Your task to perform on an android device: Search for vegetarian restaurants on Maps Image 0: 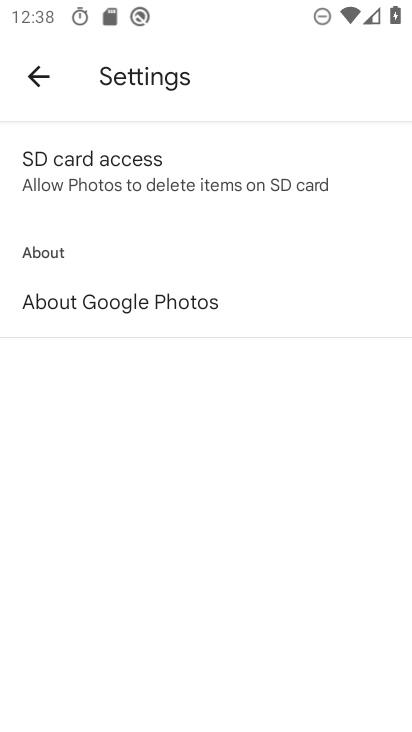
Step 0: press home button
Your task to perform on an android device: Search for vegetarian restaurants on Maps Image 1: 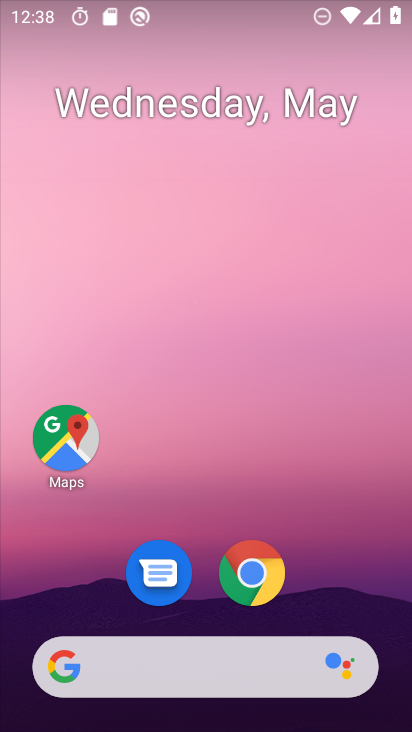
Step 1: drag from (296, 587) to (301, 61)
Your task to perform on an android device: Search for vegetarian restaurants on Maps Image 2: 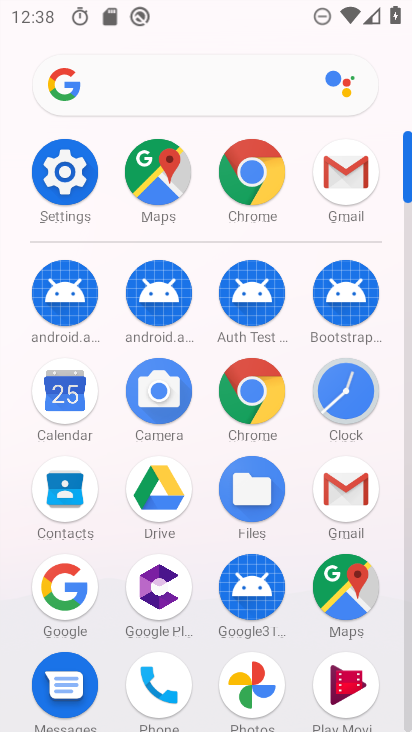
Step 2: click (337, 588)
Your task to perform on an android device: Search for vegetarian restaurants on Maps Image 3: 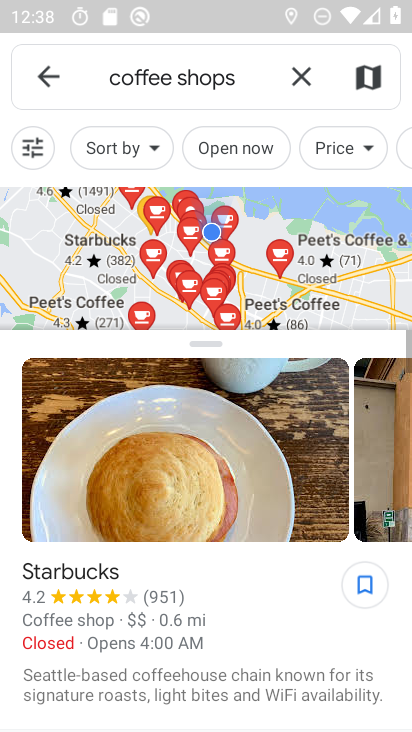
Step 3: click (296, 74)
Your task to perform on an android device: Search for vegetarian restaurants on Maps Image 4: 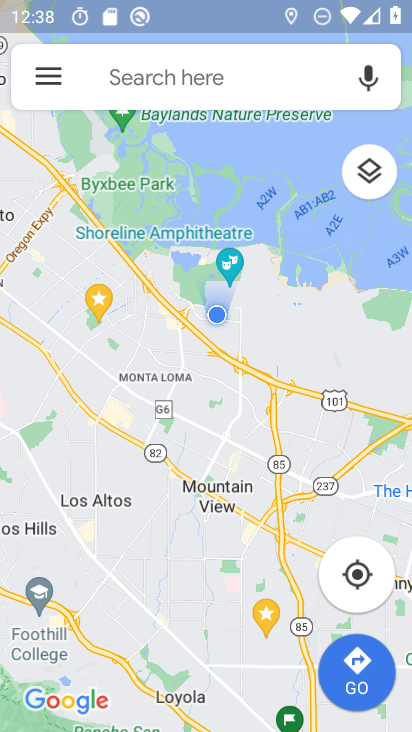
Step 4: click (111, 77)
Your task to perform on an android device: Search for vegetarian restaurants on Maps Image 5: 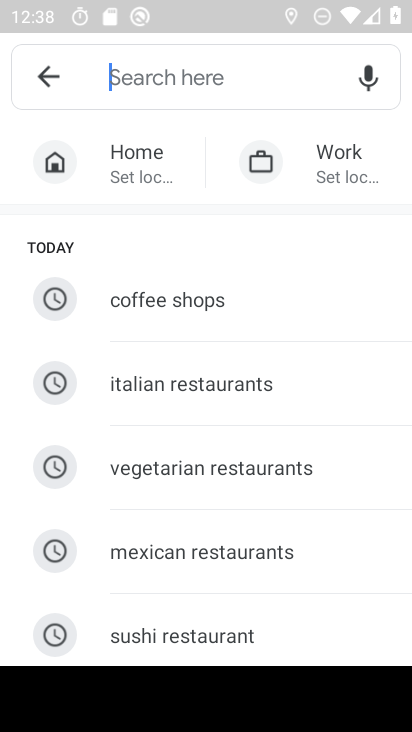
Step 5: click (247, 455)
Your task to perform on an android device: Search for vegetarian restaurants on Maps Image 6: 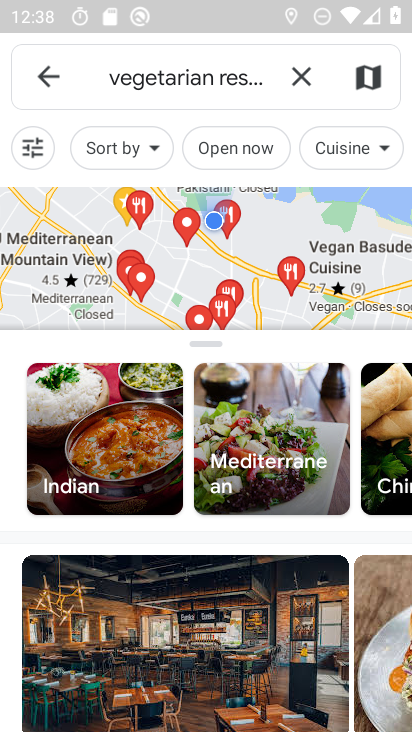
Step 6: task complete